Your task to perform on an android device: Check the news Image 0: 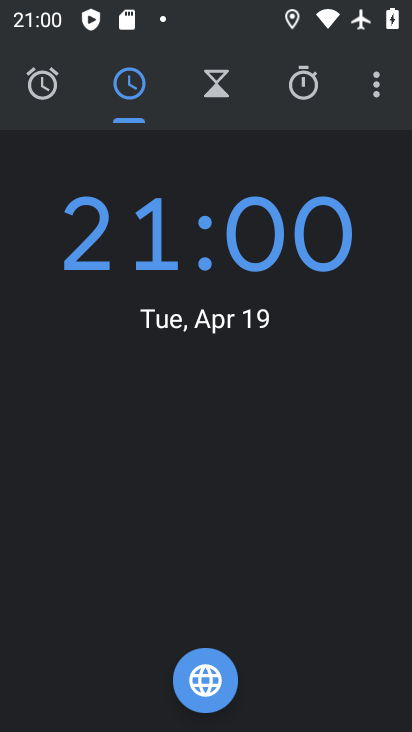
Step 0: press home button
Your task to perform on an android device: Check the news Image 1: 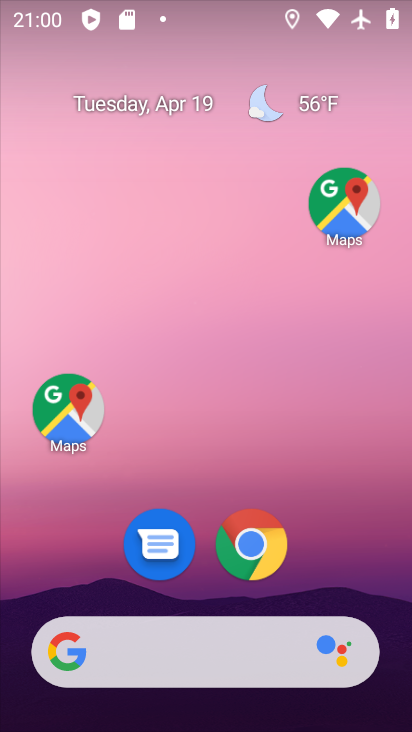
Step 1: drag from (6, 241) to (408, 262)
Your task to perform on an android device: Check the news Image 2: 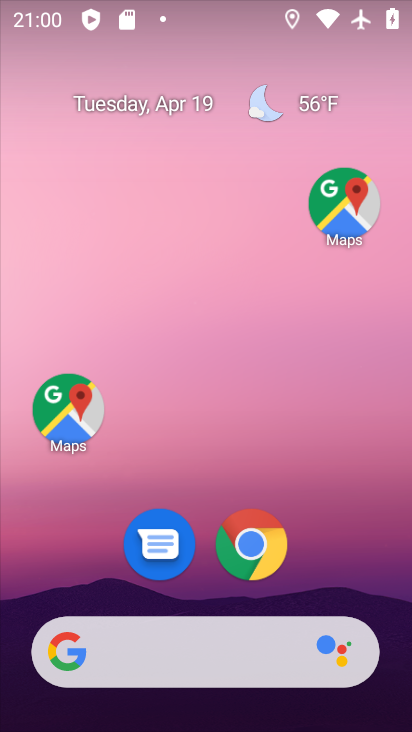
Step 2: drag from (207, 268) to (385, 310)
Your task to perform on an android device: Check the news Image 3: 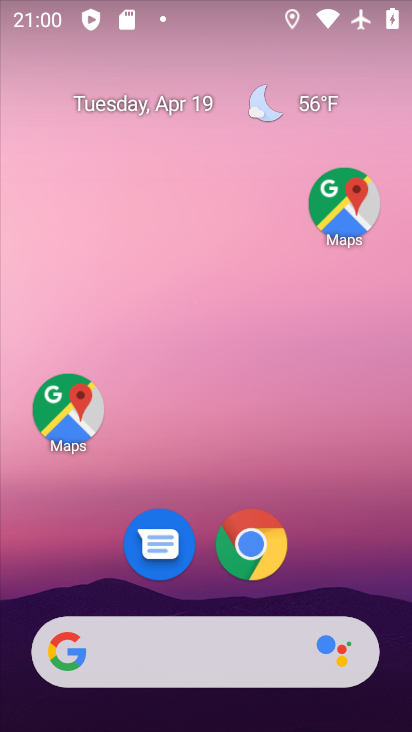
Step 3: drag from (11, 259) to (400, 298)
Your task to perform on an android device: Check the news Image 4: 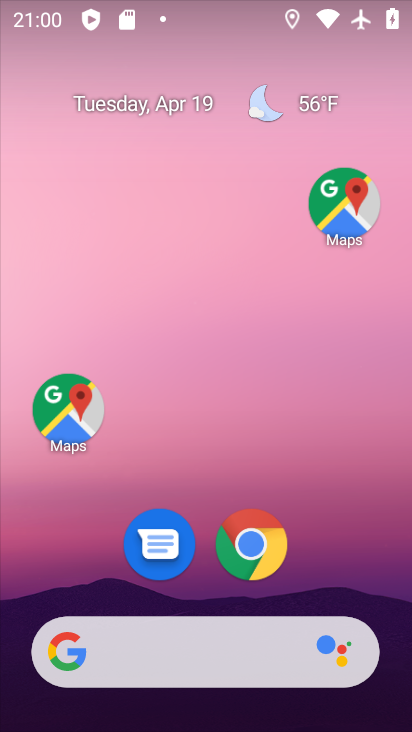
Step 4: drag from (0, 236) to (380, 317)
Your task to perform on an android device: Check the news Image 5: 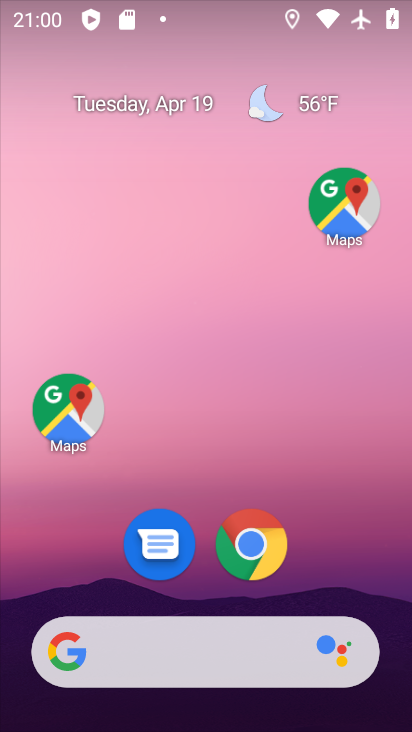
Step 5: drag from (1, 233) to (408, 383)
Your task to perform on an android device: Check the news Image 6: 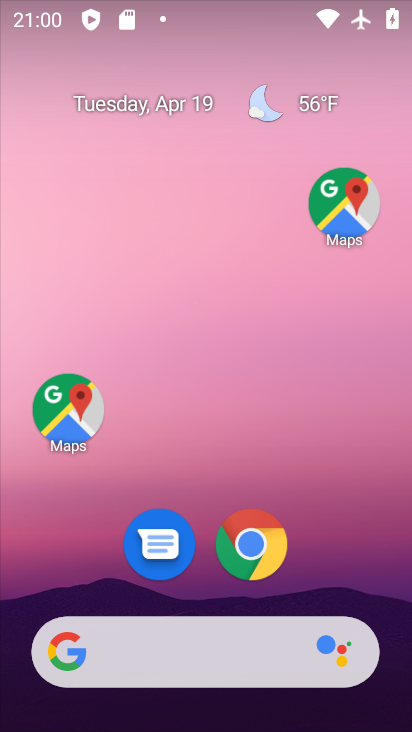
Step 6: drag from (151, 649) to (309, 127)
Your task to perform on an android device: Check the news Image 7: 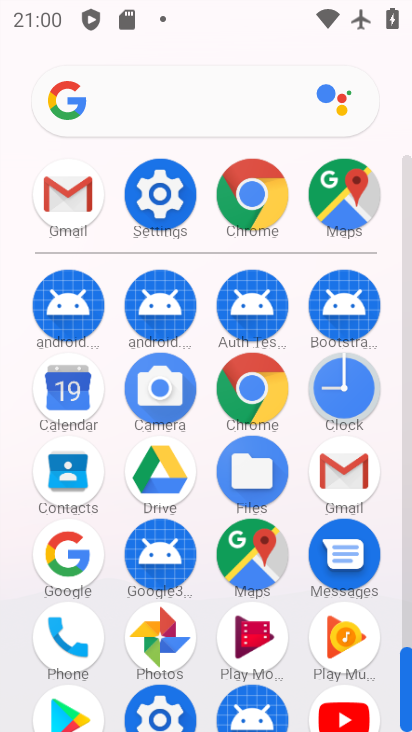
Step 7: click (60, 560)
Your task to perform on an android device: Check the news Image 8: 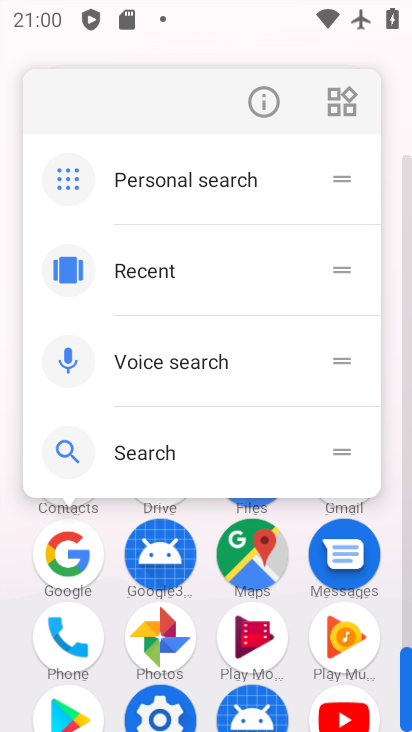
Step 8: click (67, 557)
Your task to perform on an android device: Check the news Image 9: 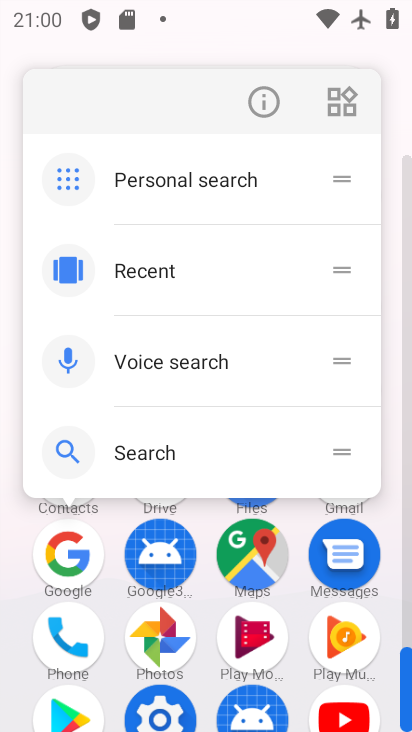
Step 9: click (67, 579)
Your task to perform on an android device: Check the news Image 10: 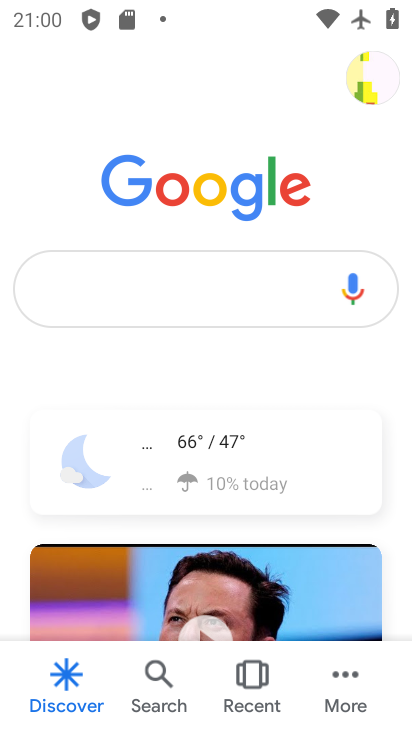
Step 10: task complete